Your task to perform on an android device: set default search engine in the chrome app Image 0: 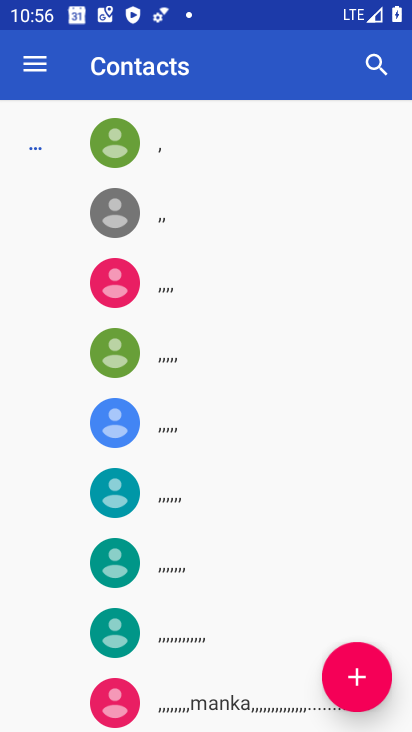
Step 0: press home button
Your task to perform on an android device: set default search engine in the chrome app Image 1: 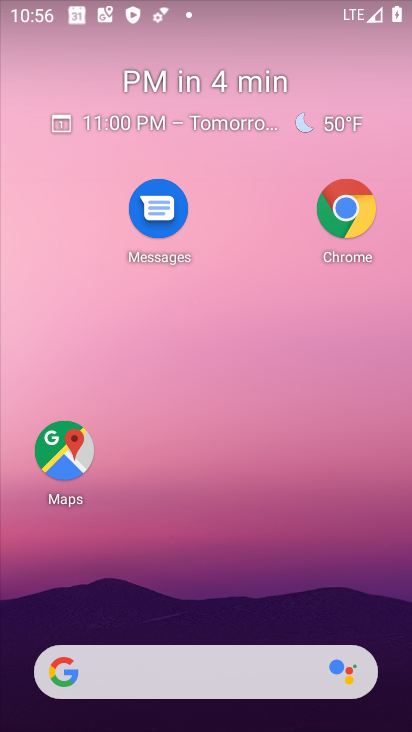
Step 1: drag from (201, 626) to (264, 11)
Your task to perform on an android device: set default search engine in the chrome app Image 2: 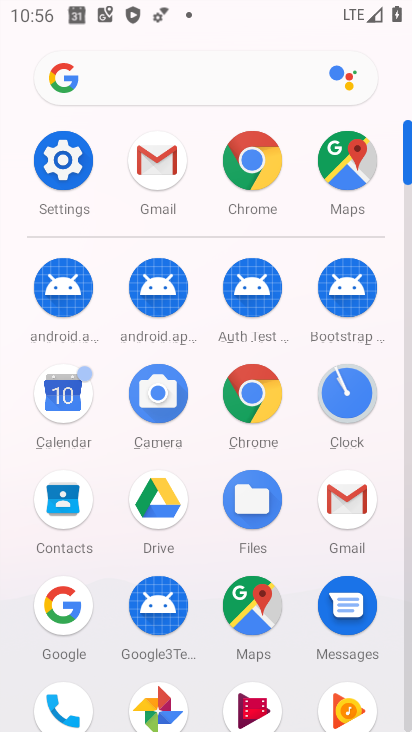
Step 2: click (269, 380)
Your task to perform on an android device: set default search engine in the chrome app Image 3: 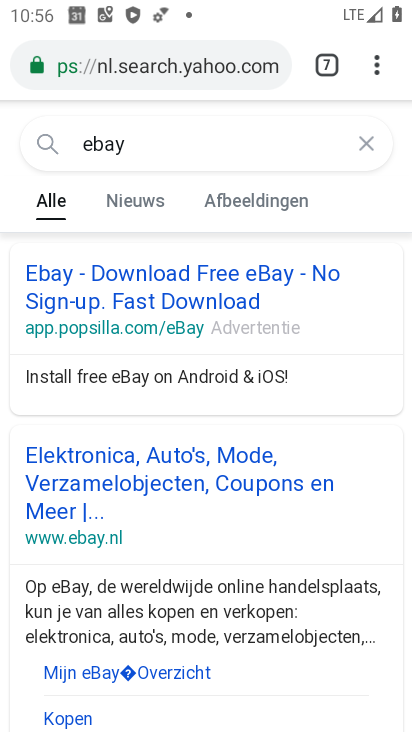
Step 3: click (383, 54)
Your task to perform on an android device: set default search engine in the chrome app Image 4: 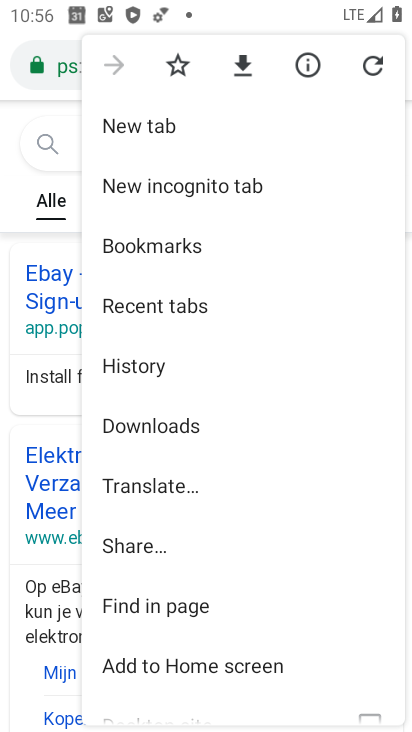
Step 4: drag from (209, 617) to (147, 109)
Your task to perform on an android device: set default search engine in the chrome app Image 5: 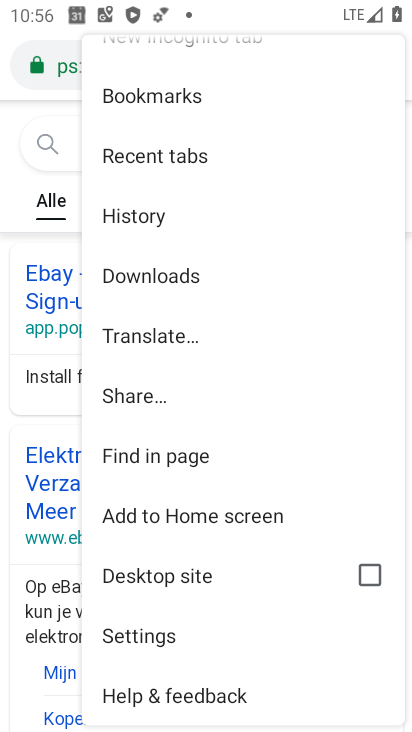
Step 5: click (172, 616)
Your task to perform on an android device: set default search engine in the chrome app Image 6: 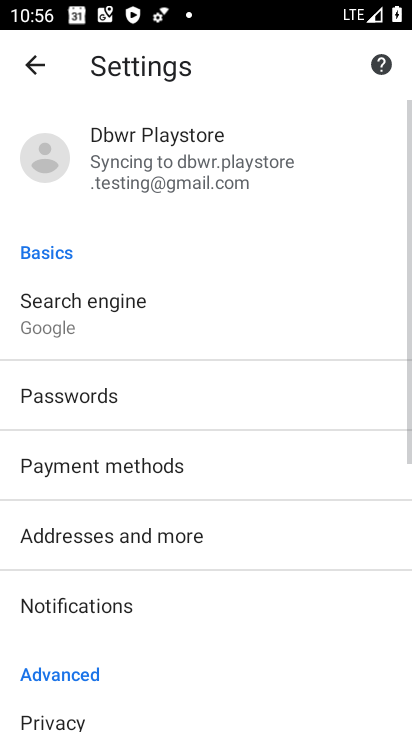
Step 6: click (107, 331)
Your task to perform on an android device: set default search engine in the chrome app Image 7: 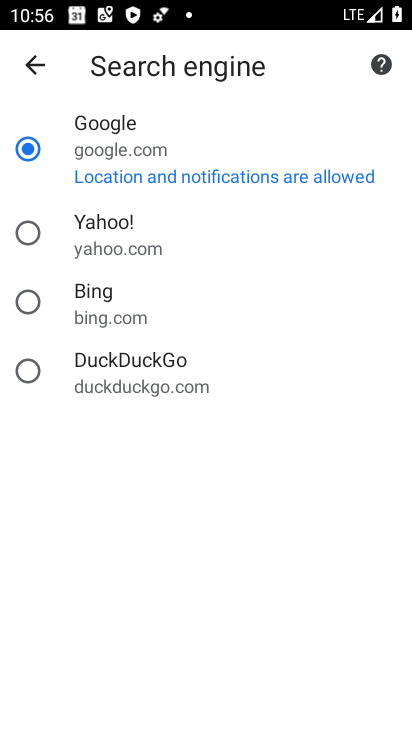
Step 7: task complete